Your task to perform on an android device: search for starred emails in the gmail app Image 0: 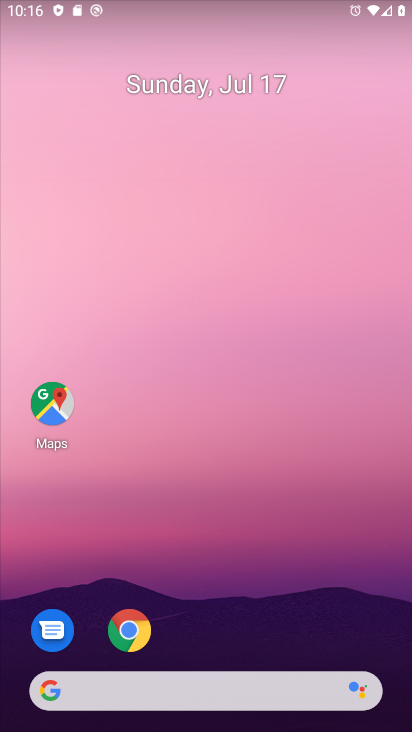
Step 0: drag from (329, 604) to (317, 136)
Your task to perform on an android device: search for starred emails in the gmail app Image 1: 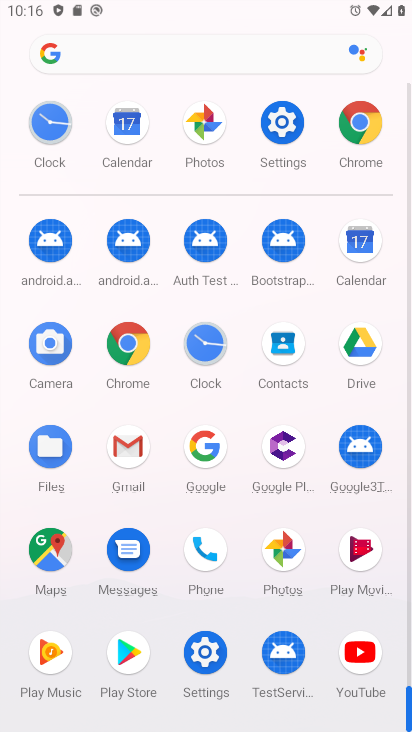
Step 1: click (119, 432)
Your task to perform on an android device: search for starred emails in the gmail app Image 2: 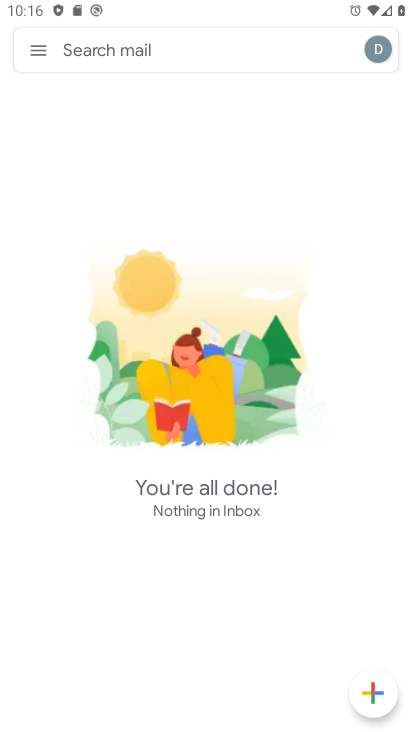
Step 2: click (37, 52)
Your task to perform on an android device: search for starred emails in the gmail app Image 3: 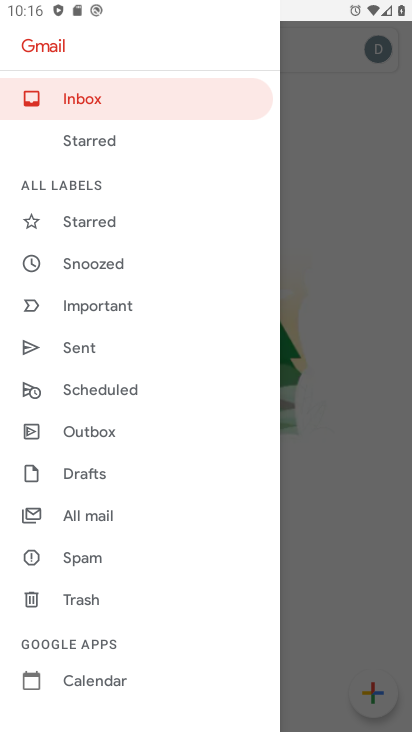
Step 3: drag from (206, 345) to (213, 279)
Your task to perform on an android device: search for starred emails in the gmail app Image 4: 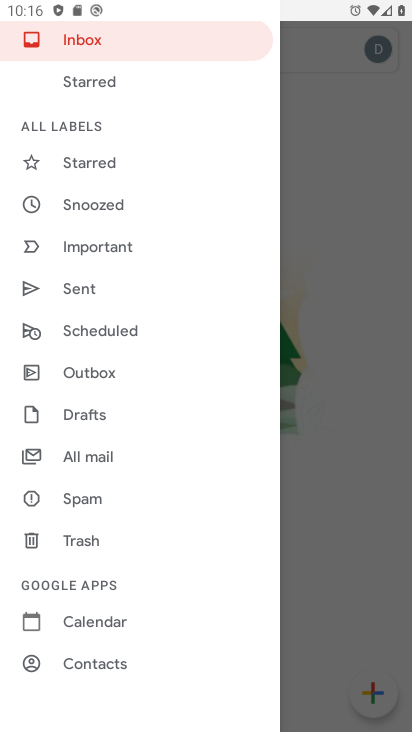
Step 4: drag from (221, 409) to (220, 342)
Your task to perform on an android device: search for starred emails in the gmail app Image 5: 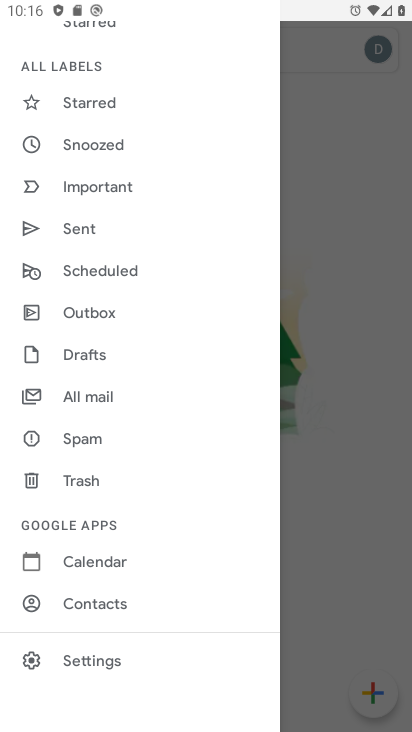
Step 5: drag from (218, 428) to (224, 338)
Your task to perform on an android device: search for starred emails in the gmail app Image 6: 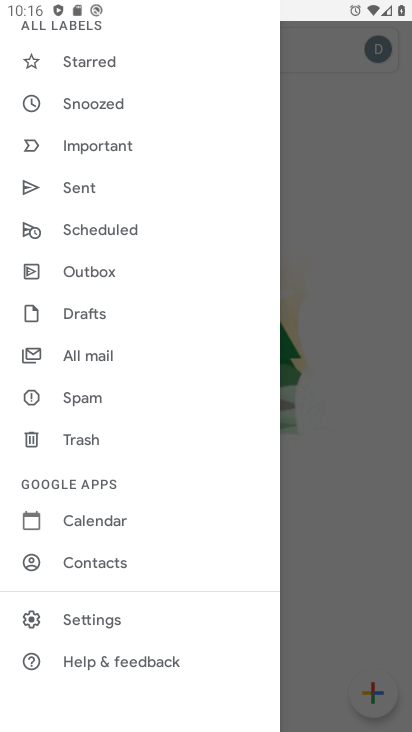
Step 6: drag from (213, 220) to (212, 293)
Your task to perform on an android device: search for starred emails in the gmail app Image 7: 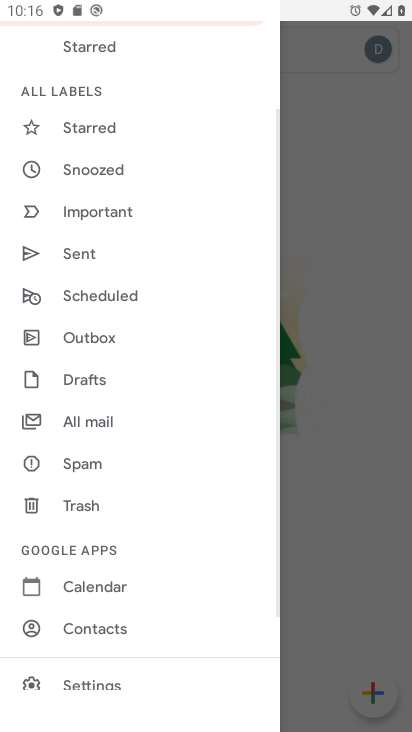
Step 7: drag from (213, 188) to (215, 276)
Your task to perform on an android device: search for starred emails in the gmail app Image 8: 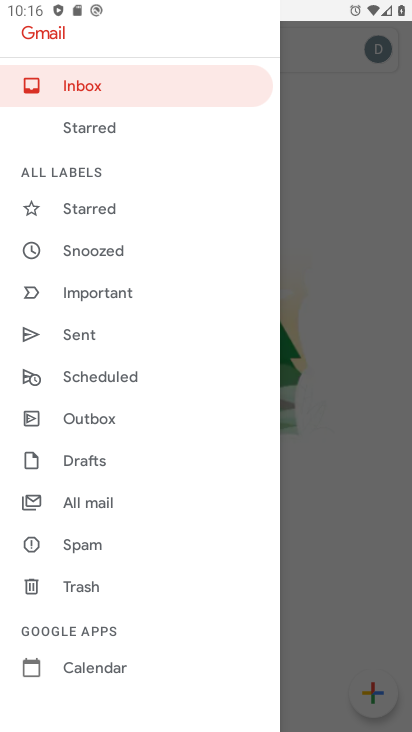
Step 8: drag from (214, 165) to (210, 277)
Your task to perform on an android device: search for starred emails in the gmail app Image 9: 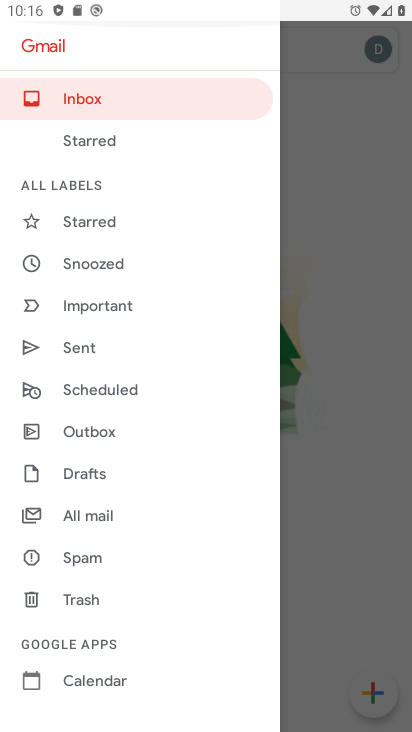
Step 9: click (99, 217)
Your task to perform on an android device: search for starred emails in the gmail app Image 10: 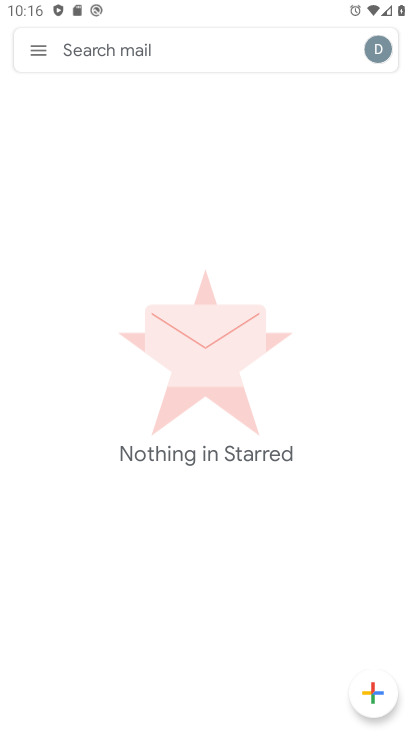
Step 10: task complete